Your task to perform on an android device: change notification settings in the gmail app Image 0: 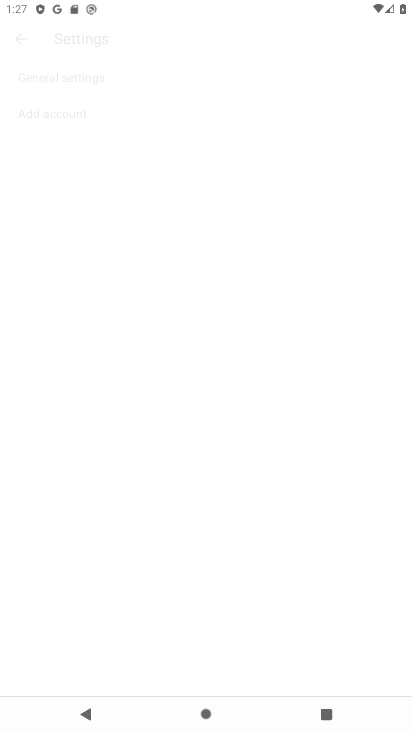
Step 0: click (66, 386)
Your task to perform on an android device: change notification settings in the gmail app Image 1: 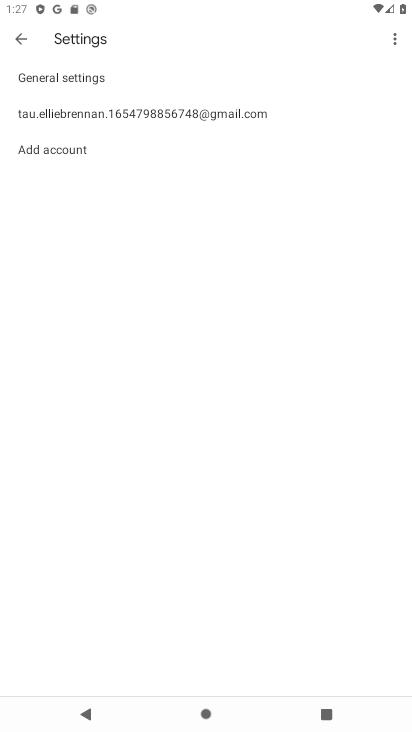
Step 1: click (208, 116)
Your task to perform on an android device: change notification settings in the gmail app Image 2: 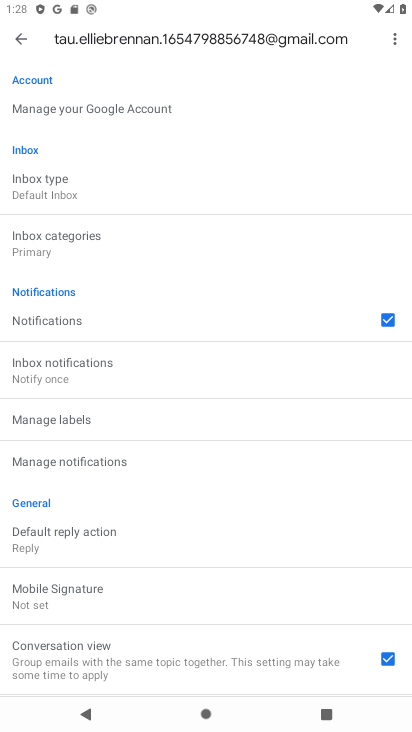
Step 2: click (107, 366)
Your task to perform on an android device: change notification settings in the gmail app Image 3: 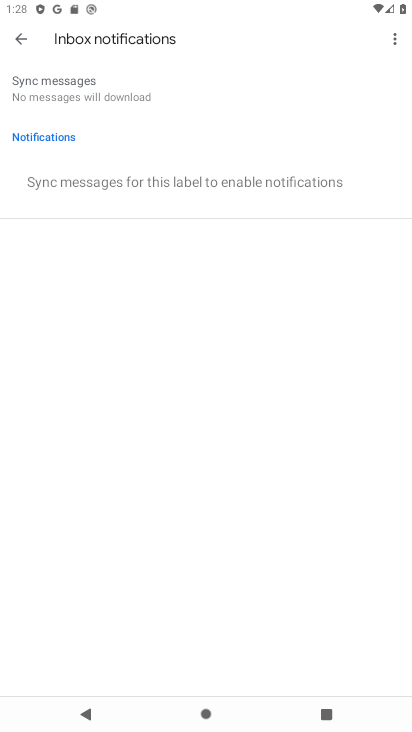
Step 3: click (23, 35)
Your task to perform on an android device: change notification settings in the gmail app Image 4: 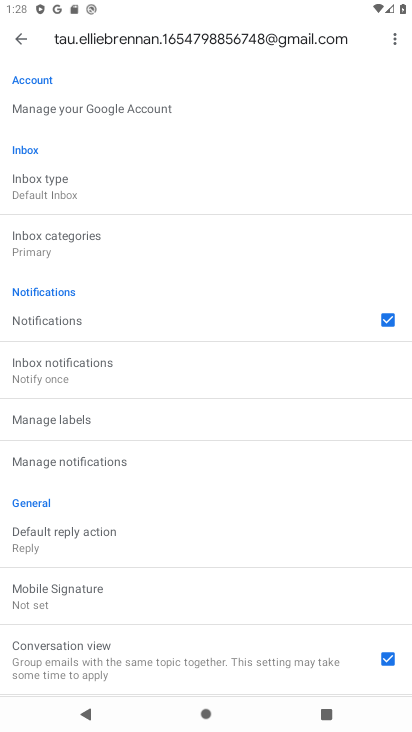
Step 4: click (128, 464)
Your task to perform on an android device: change notification settings in the gmail app Image 5: 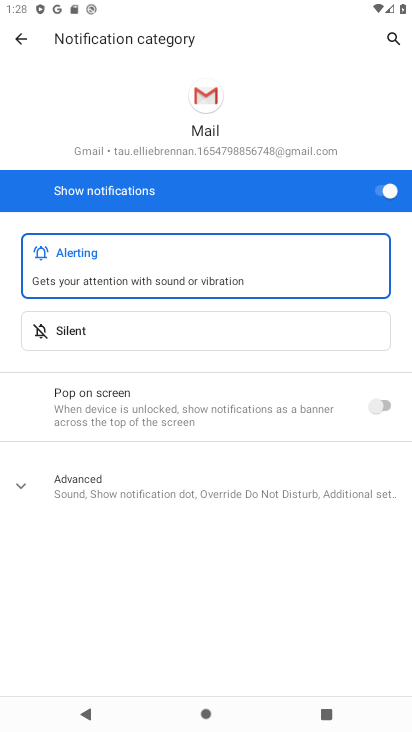
Step 5: click (388, 190)
Your task to perform on an android device: change notification settings in the gmail app Image 6: 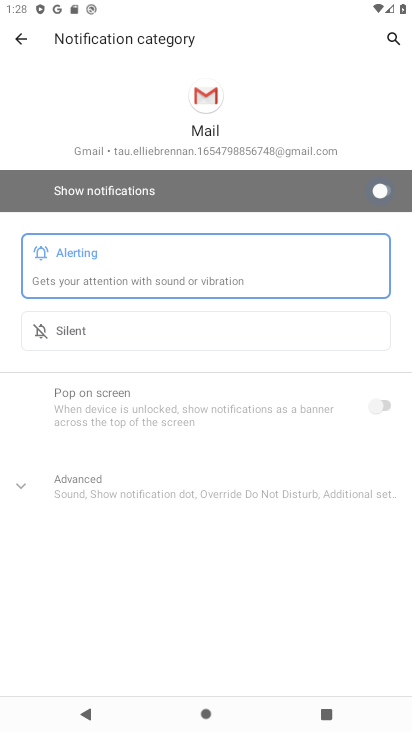
Step 6: task complete